Your task to perform on an android device: search for starred emails in the gmail app Image 0: 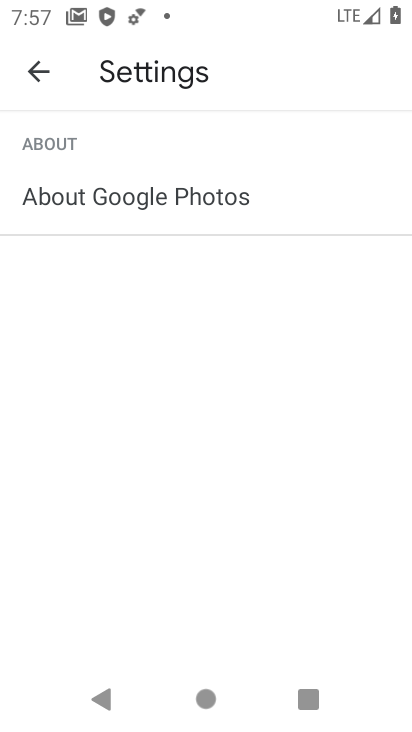
Step 0: press home button
Your task to perform on an android device: search for starred emails in the gmail app Image 1: 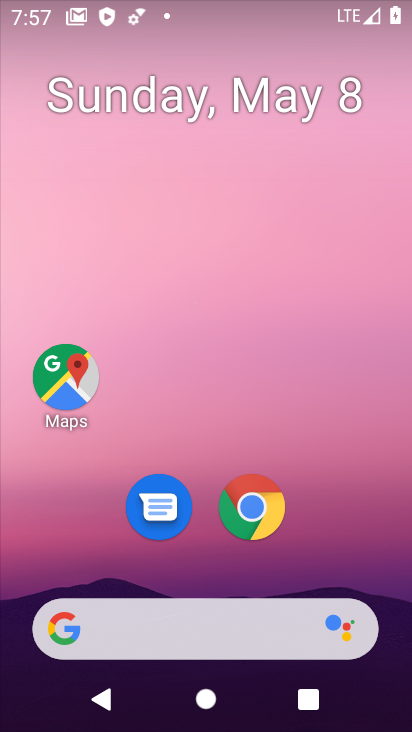
Step 1: drag from (216, 636) to (240, 0)
Your task to perform on an android device: search for starred emails in the gmail app Image 2: 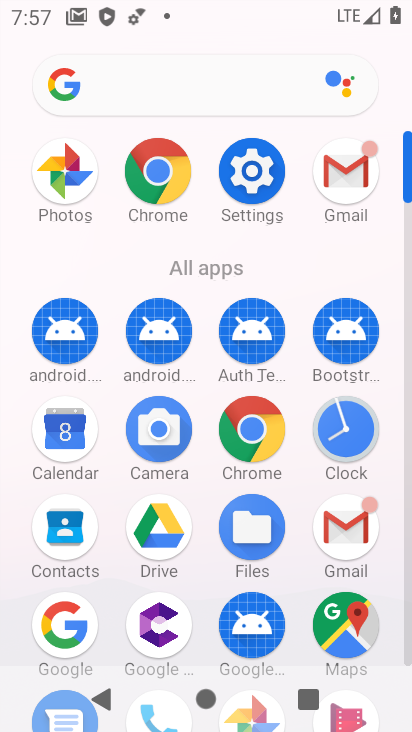
Step 2: click (340, 173)
Your task to perform on an android device: search for starred emails in the gmail app Image 3: 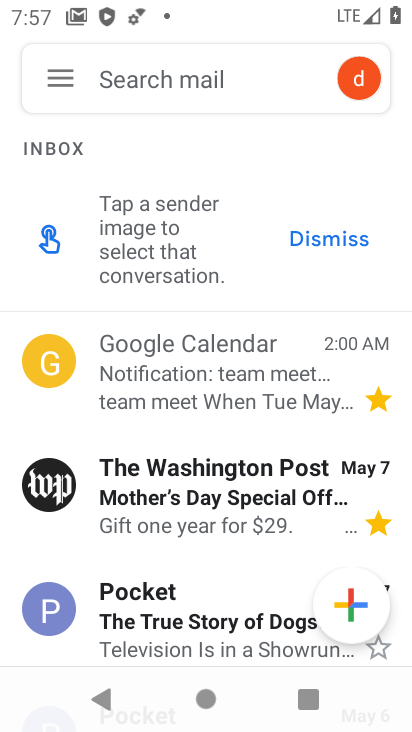
Step 3: click (51, 71)
Your task to perform on an android device: search for starred emails in the gmail app Image 4: 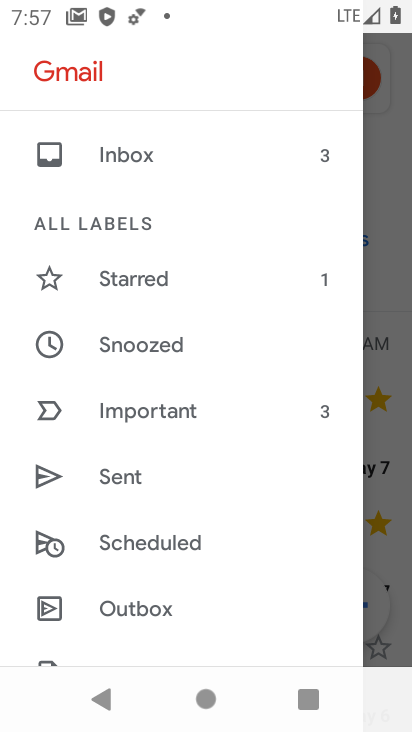
Step 4: click (181, 279)
Your task to perform on an android device: search for starred emails in the gmail app Image 5: 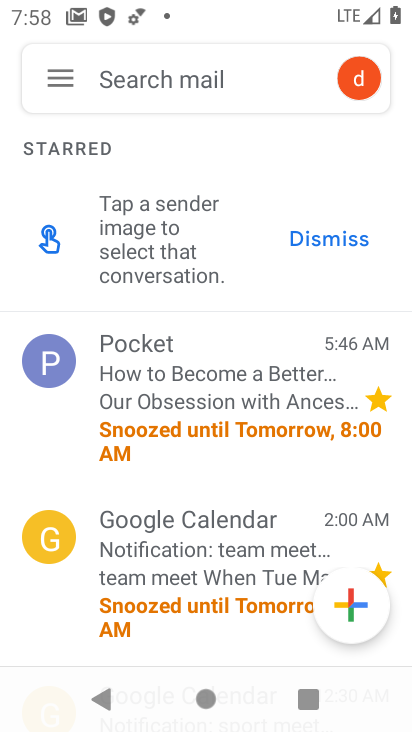
Step 5: task complete